Your task to perform on an android device: turn on javascript in the chrome app Image 0: 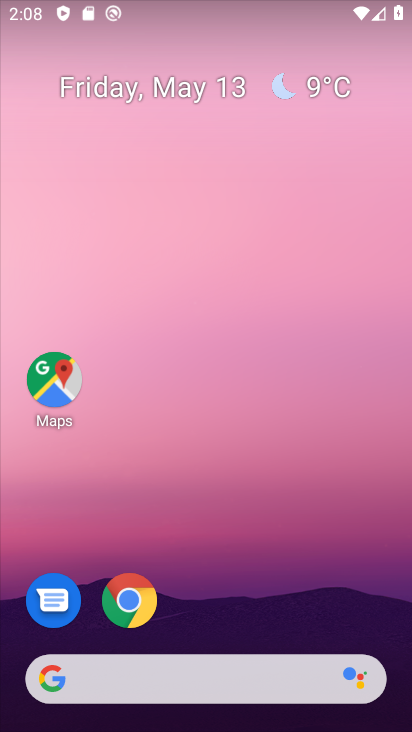
Step 0: click (136, 599)
Your task to perform on an android device: turn on javascript in the chrome app Image 1: 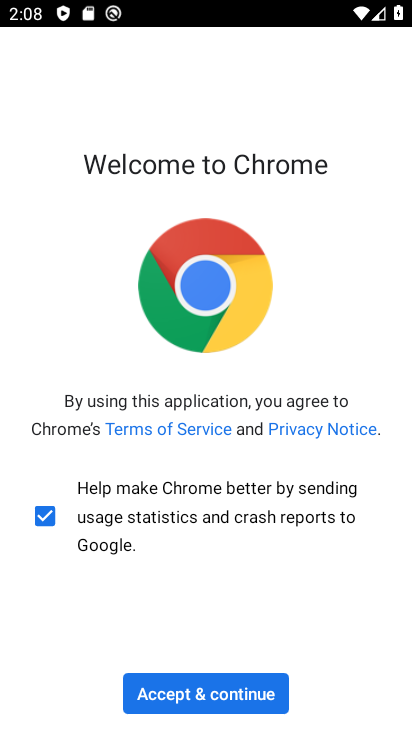
Step 1: click (217, 694)
Your task to perform on an android device: turn on javascript in the chrome app Image 2: 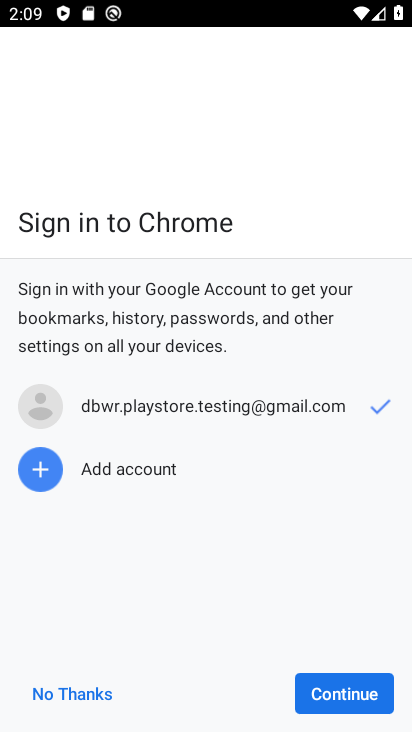
Step 2: click (316, 687)
Your task to perform on an android device: turn on javascript in the chrome app Image 3: 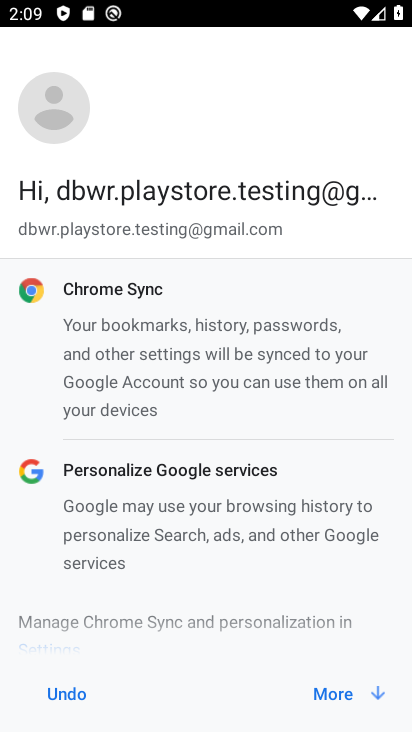
Step 3: click (316, 687)
Your task to perform on an android device: turn on javascript in the chrome app Image 4: 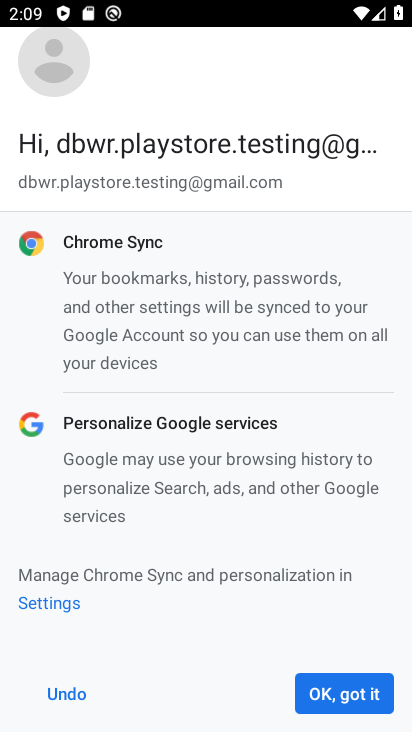
Step 4: click (316, 687)
Your task to perform on an android device: turn on javascript in the chrome app Image 5: 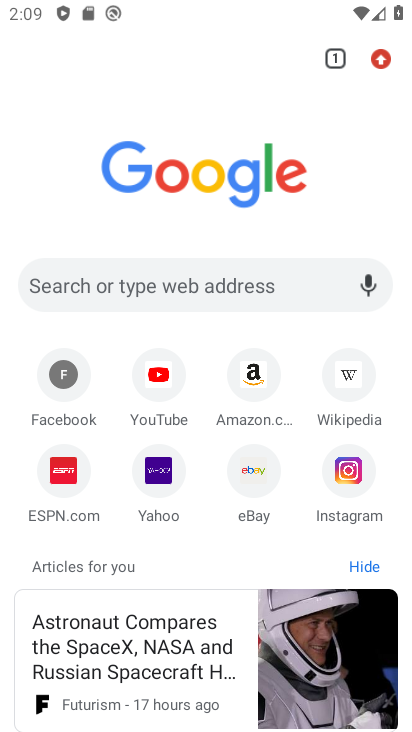
Step 5: click (390, 58)
Your task to perform on an android device: turn on javascript in the chrome app Image 6: 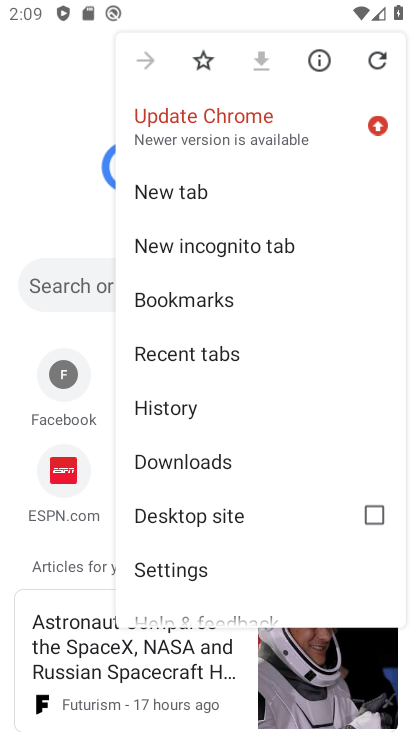
Step 6: click (172, 571)
Your task to perform on an android device: turn on javascript in the chrome app Image 7: 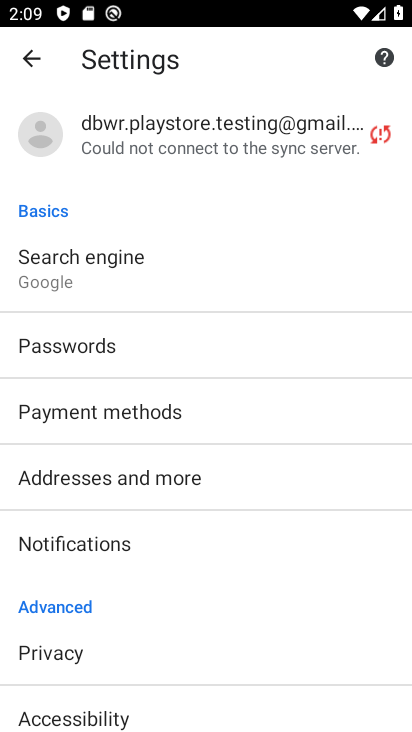
Step 7: drag from (189, 602) to (182, 350)
Your task to perform on an android device: turn on javascript in the chrome app Image 8: 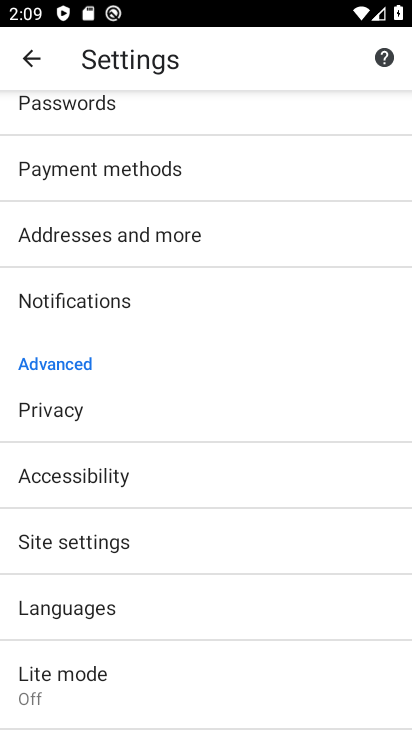
Step 8: click (110, 534)
Your task to perform on an android device: turn on javascript in the chrome app Image 9: 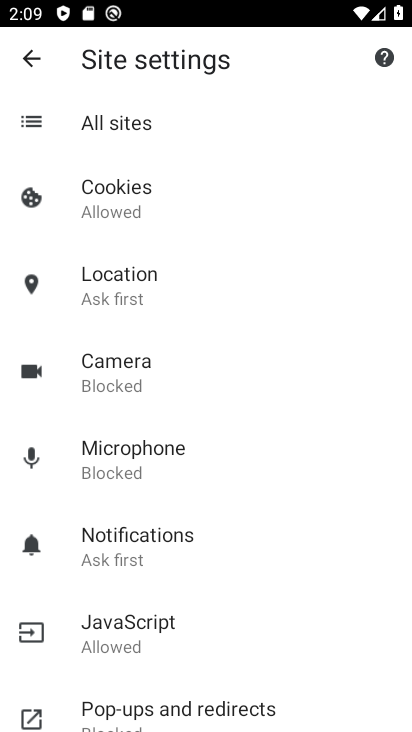
Step 9: click (133, 621)
Your task to perform on an android device: turn on javascript in the chrome app Image 10: 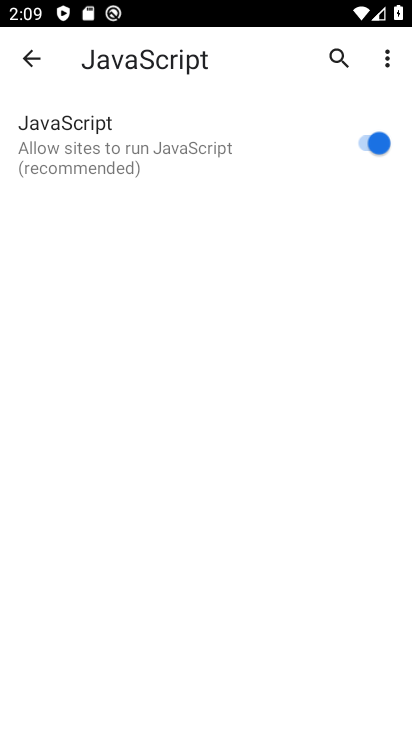
Step 10: task complete